Your task to perform on an android device: manage bookmarks in the chrome app Image 0: 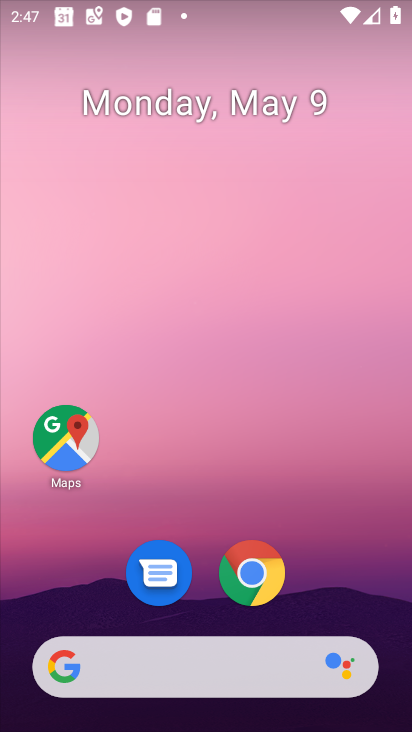
Step 0: click (258, 581)
Your task to perform on an android device: manage bookmarks in the chrome app Image 1: 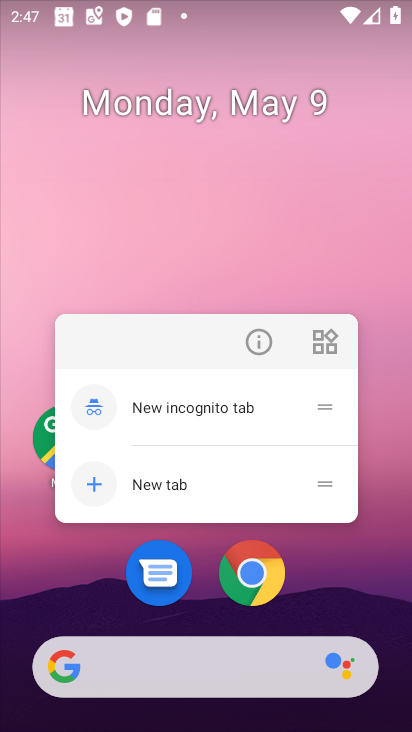
Step 1: click (239, 563)
Your task to perform on an android device: manage bookmarks in the chrome app Image 2: 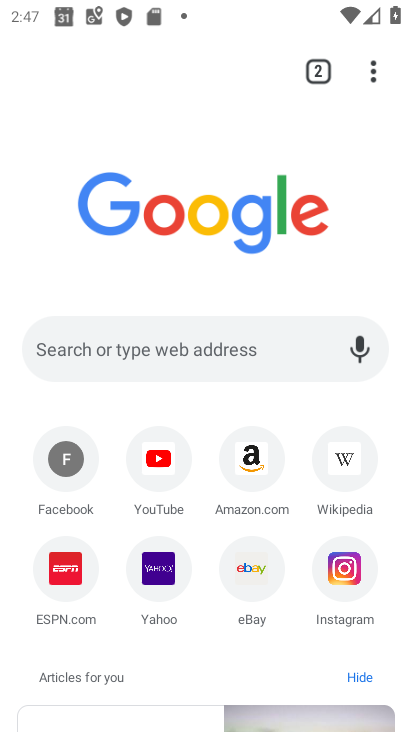
Step 2: click (379, 71)
Your task to perform on an android device: manage bookmarks in the chrome app Image 3: 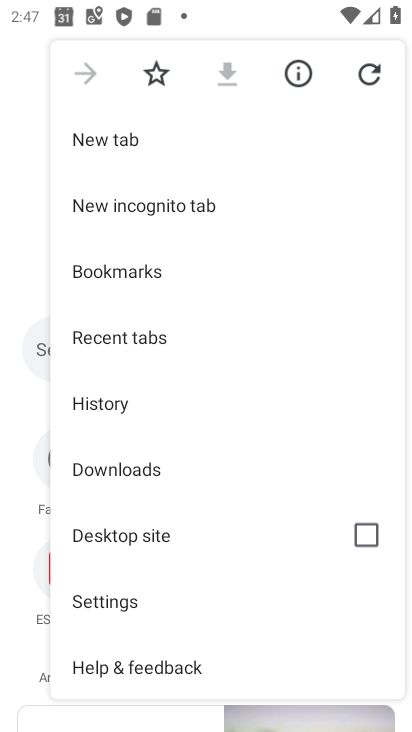
Step 3: click (107, 277)
Your task to perform on an android device: manage bookmarks in the chrome app Image 4: 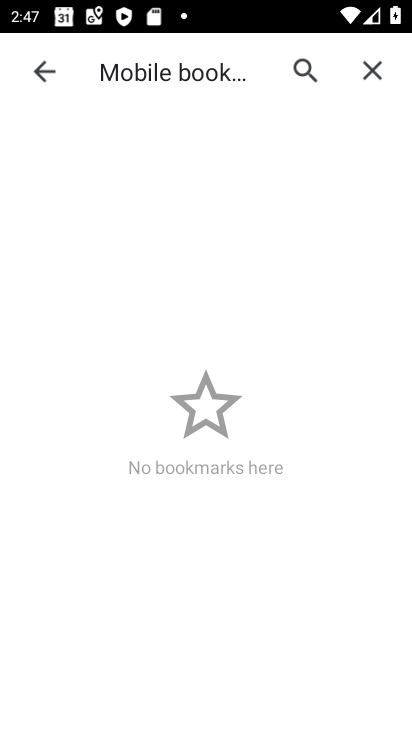
Step 4: task complete